Your task to perform on an android device: Go to settings Image 0: 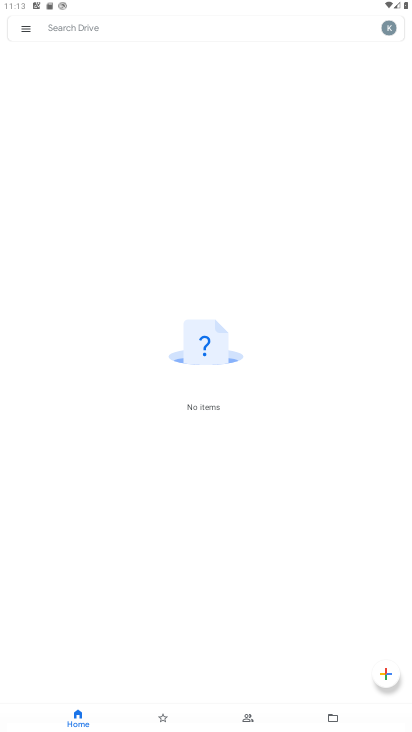
Step 0: press home button
Your task to perform on an android device: Go to settings Image 1: 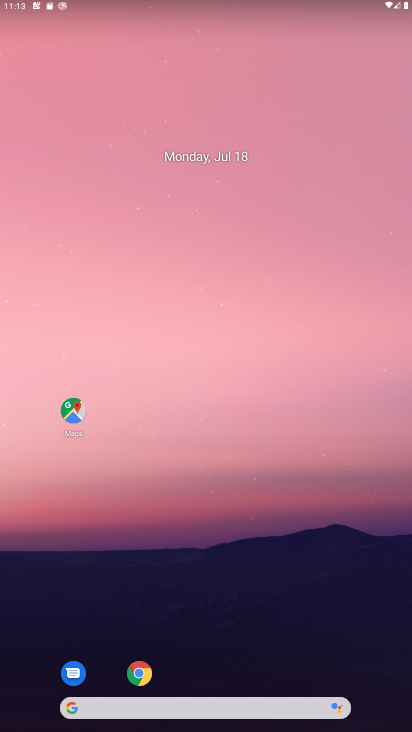
Step 1: drag from (204, 597) to (211, 198)
Your task to perform on an android device: Go to settings Image 2: 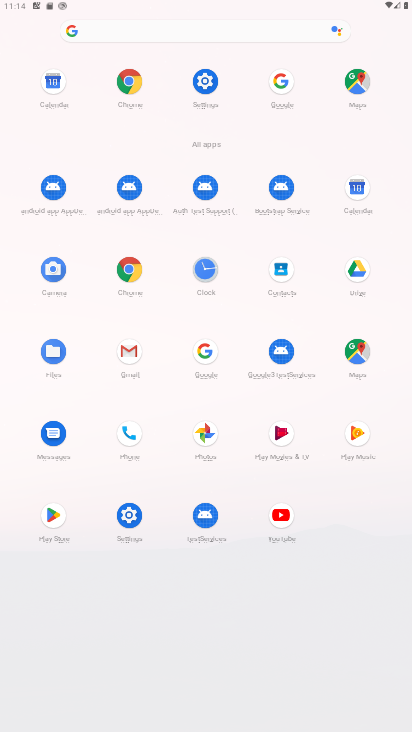
Step 2: click (204, 94)
Your task to perform on an android device: Go to settings Image 3: 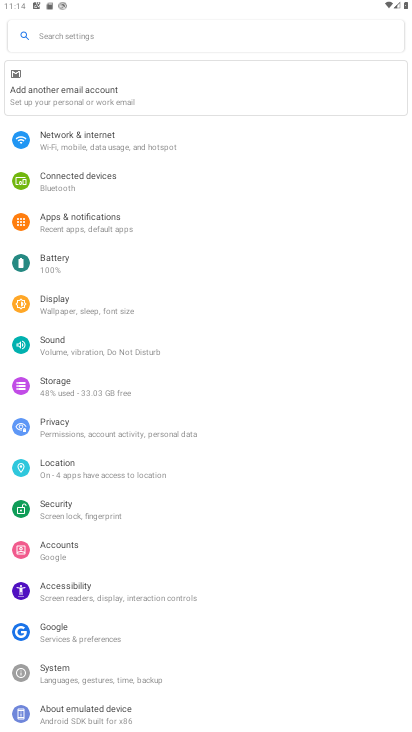
Step 3: task complete